Your task to perform on an android device: uninstall "Google Chat" Image 0: 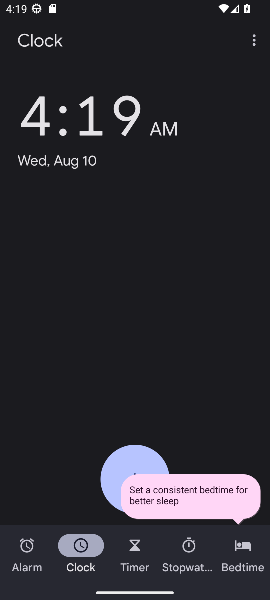
Step 0: press home button
Your task to perform on an android device: uninstall "Google Chat" Image 1: 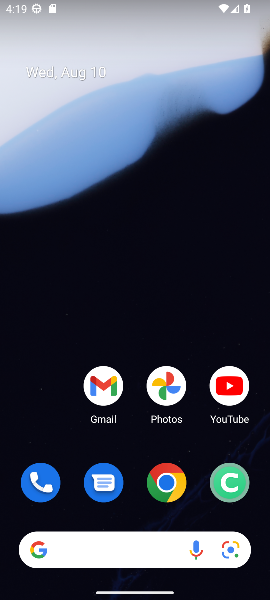
Step 1: drag from (140, 524) to (124, 43)
Your task to perform on an android device: uninstall "Google Chat" Image 2: 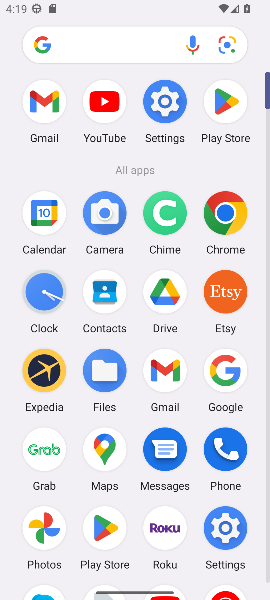
Step 2: click (220, 98)
Your task to perform on an android device: uninstall "Google Chat" Image 3: 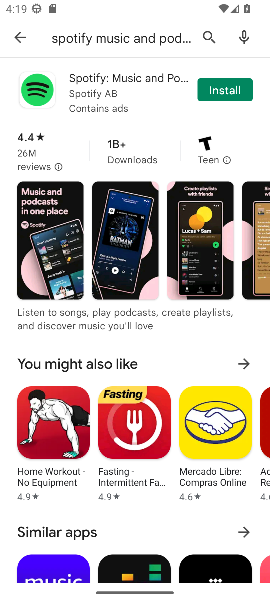
Step 3: click (206, 35)
Your task to perform on an android device: uninstall "Google Chat" Image 4: 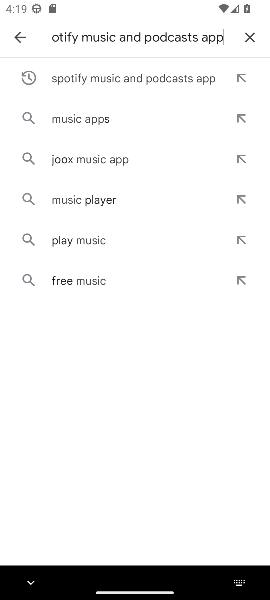
Step 4: click (248, 33)
Your task to perform on an android device: uninstall "Google Chat" Image 5: 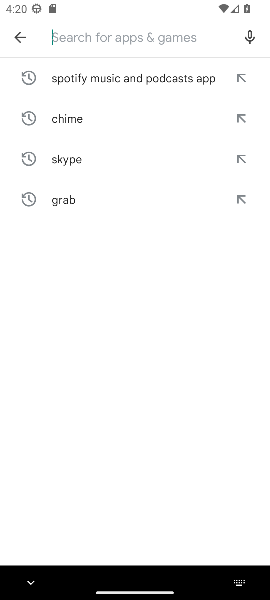
Step 5: type "Google Chat"
Your task to perform on an android device: uninstall "Google Chat" Image 6: 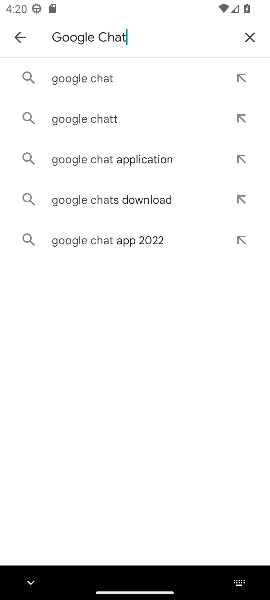
Step 6: click (74, 76)
Your task to perform on an android device: uninstall "Google Chat" Image 7: 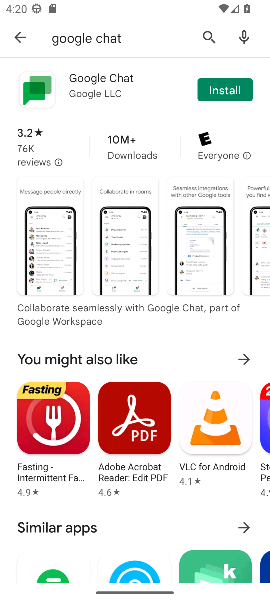
Step 7: task complete